Your task to perform on an android device: Go to accessibility settings Image 0: 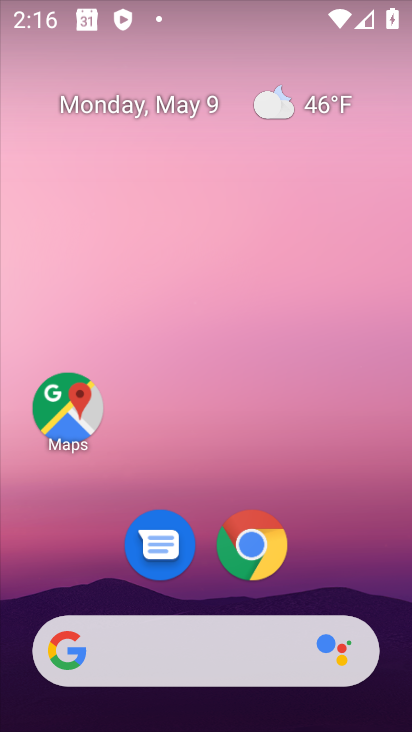
Step 0: drag from (204, 586) to (217, 123)
Your task to perform on an android device: Go to accessibility settings Image 1: 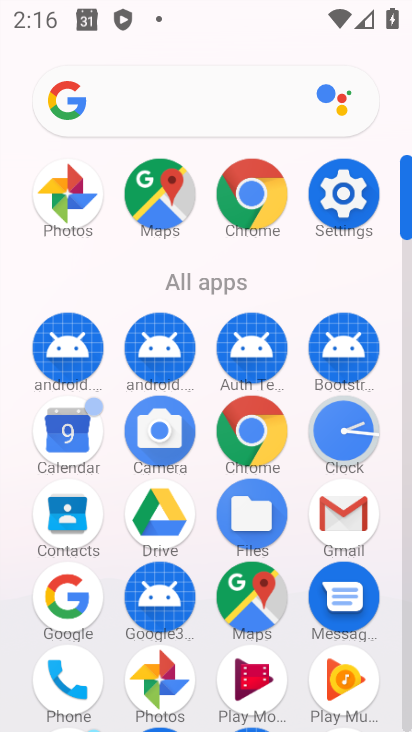
Step 1: click (319, 198)
Your task to perform on an android device: Go to accessibility settings Image 2: 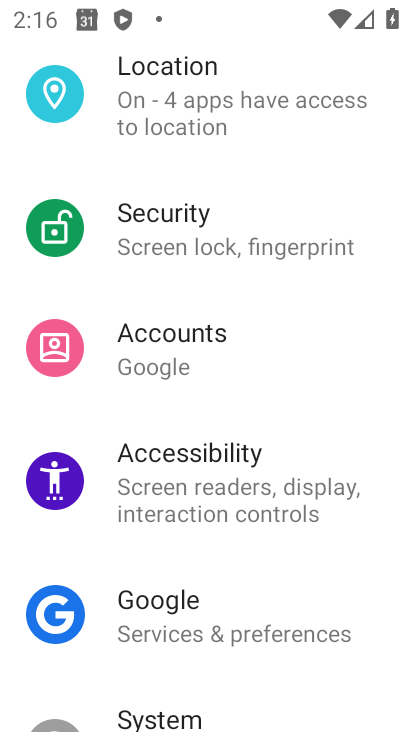
Step 2: click (253, 420)
Your task to perform on an android device: Go to accessibility settings Image 3: 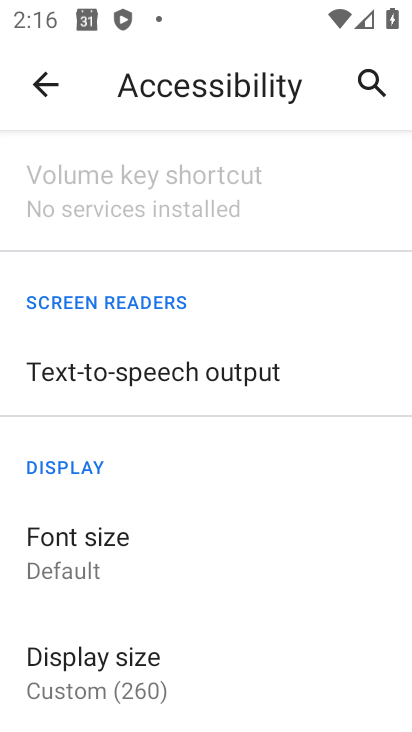
Step 3: task complete